Your task to perform on an android device: Is it going to rain today? Image 0: 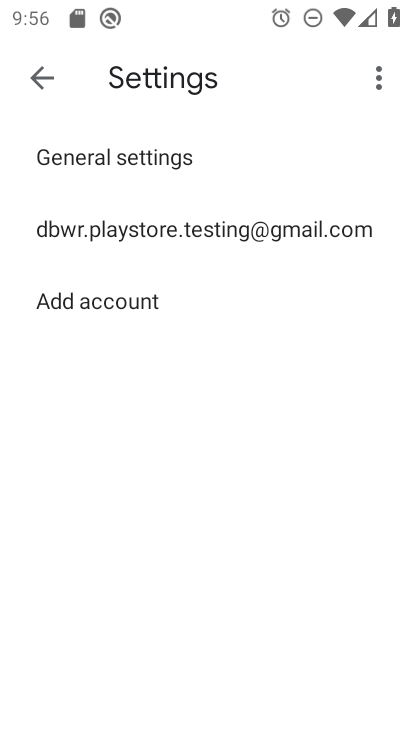
Step 0: press home button
Your task to perform on an android device: Is it going to rain today? Image 1: 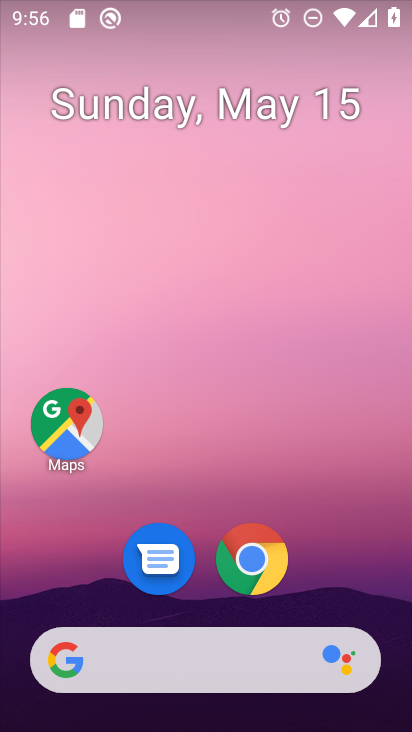
Step 1: click (196, 676)
Your task to perform on an android device: Is it going to rain today? Image 2: 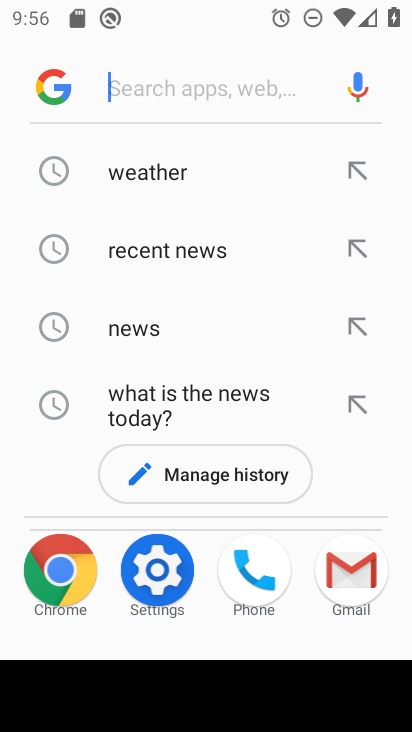
Step 2: click (176, 184)
Your task to perform on an android device: Is it going to rain today? Image 3: 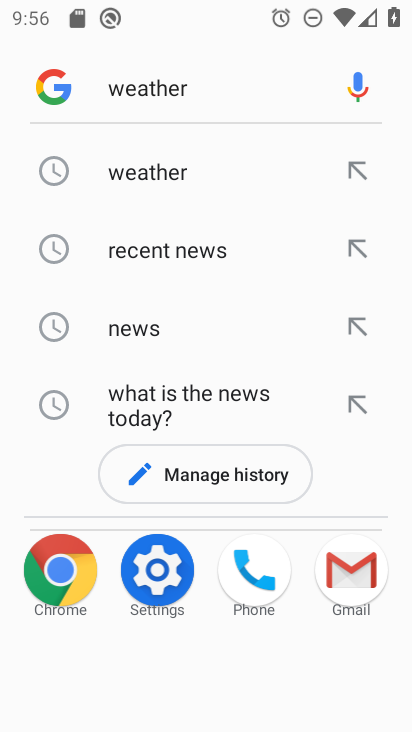
Step 3: task complete